Your task to perform on an android device: delete browsing data in the chrome app Image 0: 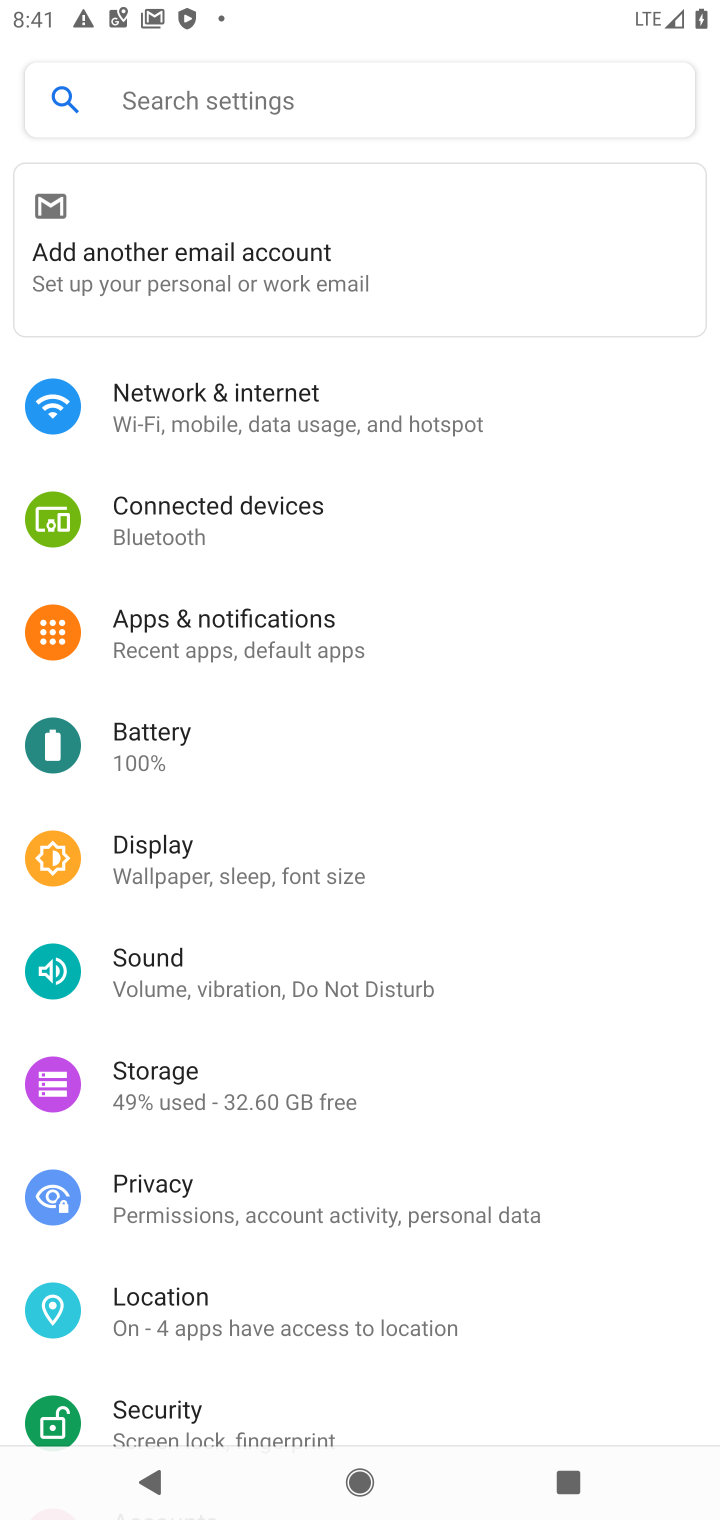
Step 0: press home button
Your task to perform on an android device: delete browsing data in the chrome app Image 1: 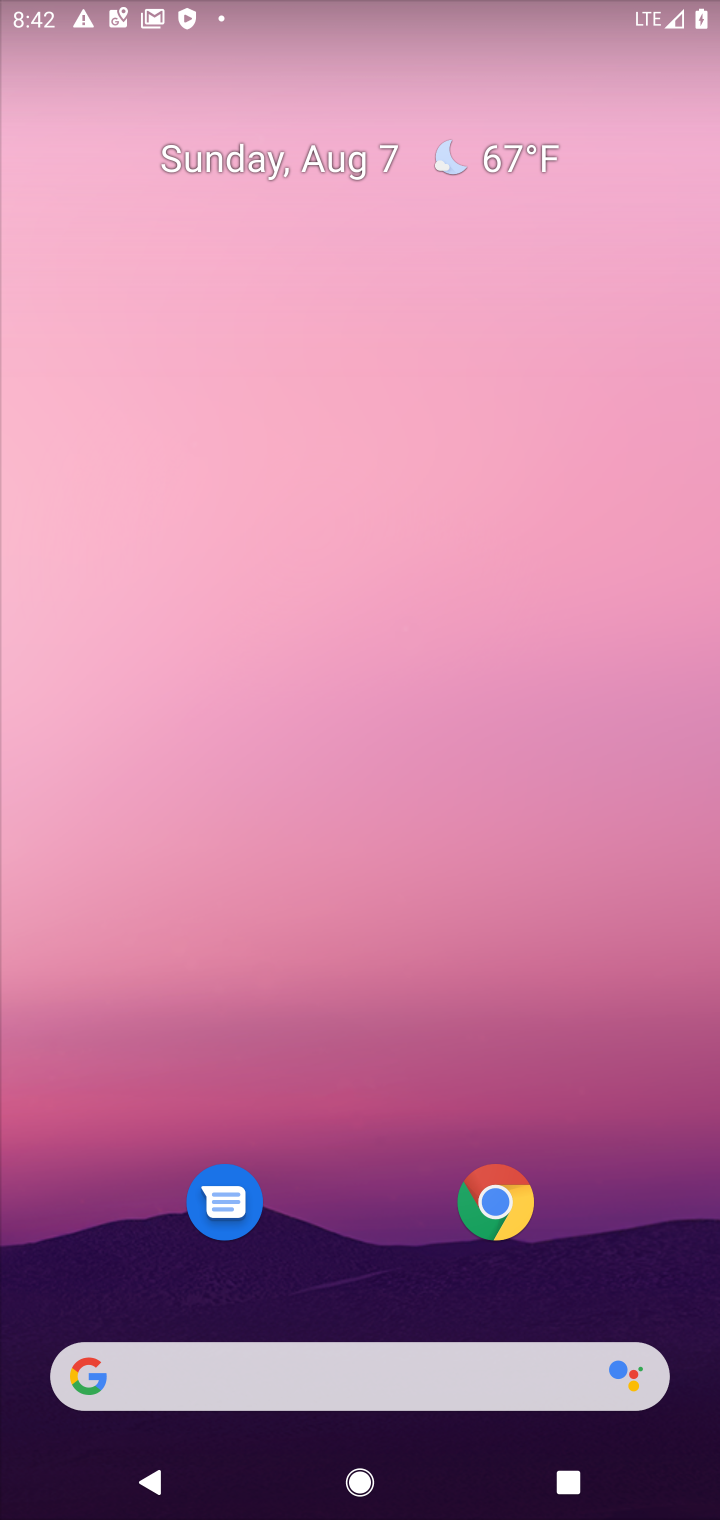
Step 1: click (472, 1202)
Your task to perform on an android device: delete browsing data in the chrome app Image 2: 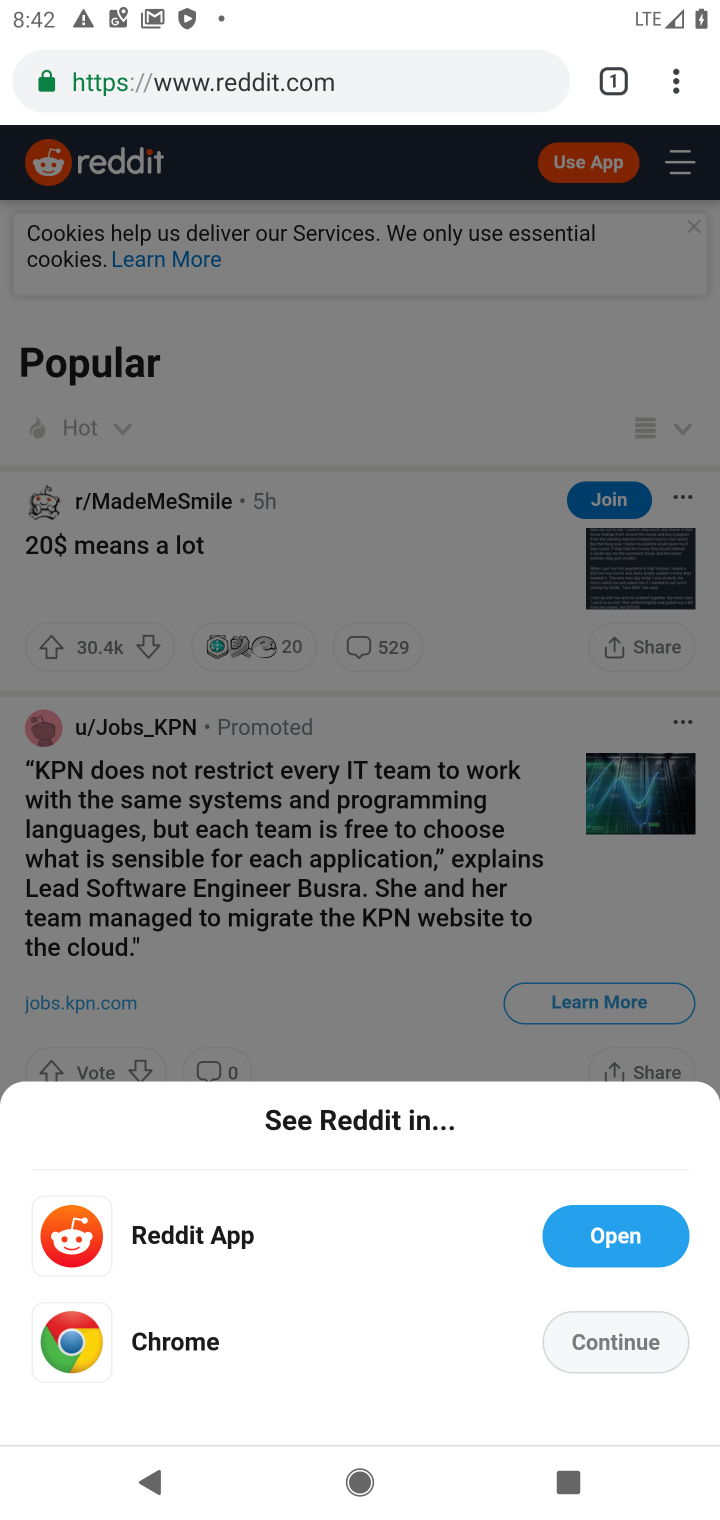
Step 2: click (682, 77)
Your task to perform on an android device: delete browsing data in the chrome app Image 3: 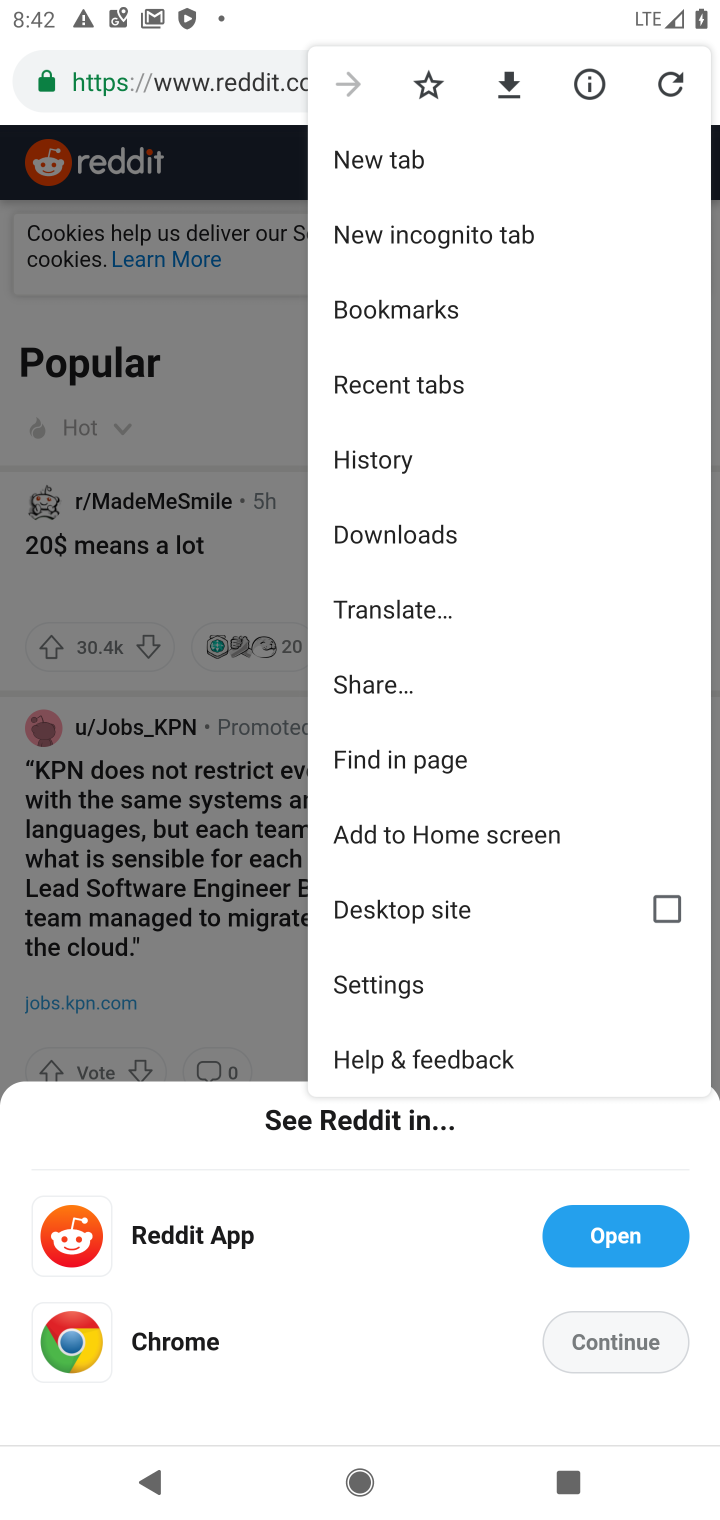
Step 3: click (410, 462)
Your task to perform on an android device: delete browsing data in the chrome app Image 4: 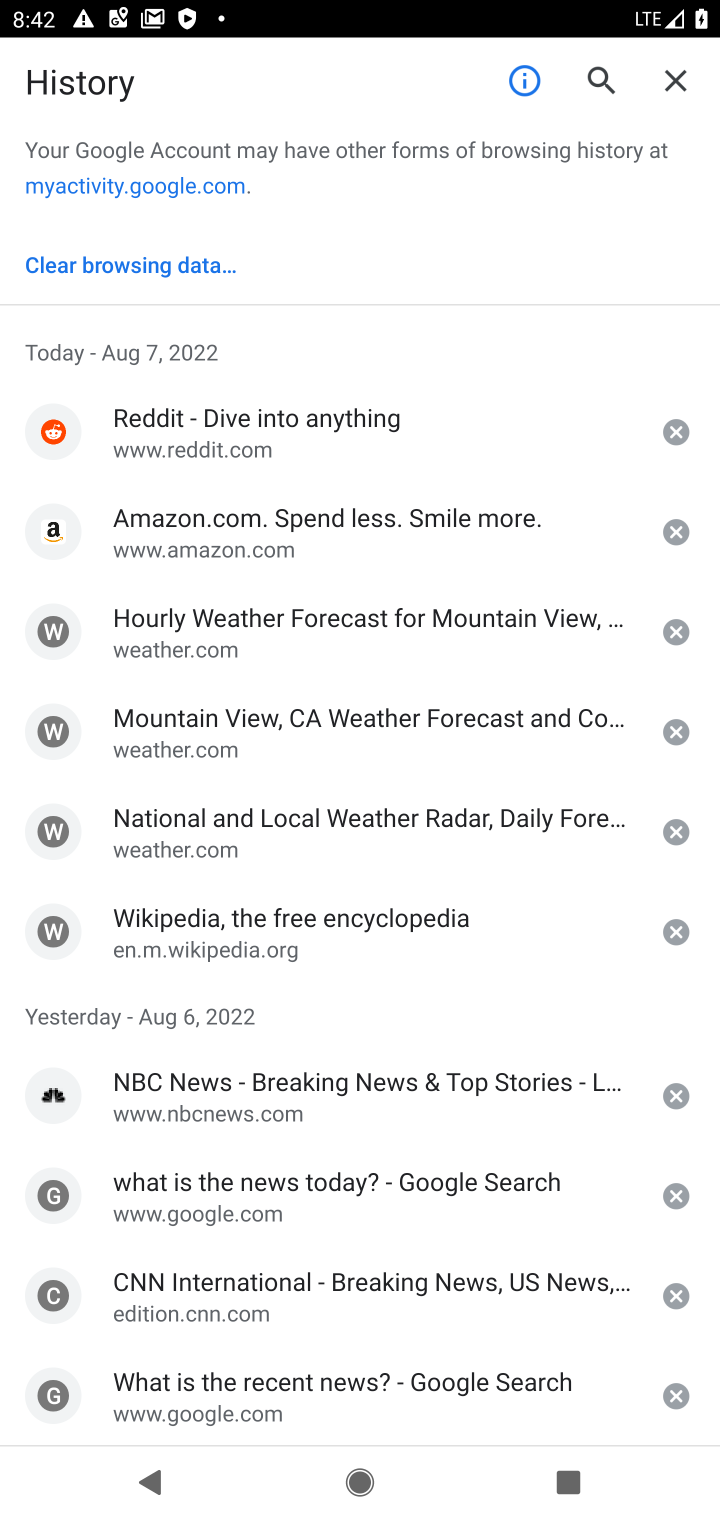
Step 4: click (155, 265)
Your task to perform on an android device: delete browsing data in the chrome app Image 5: 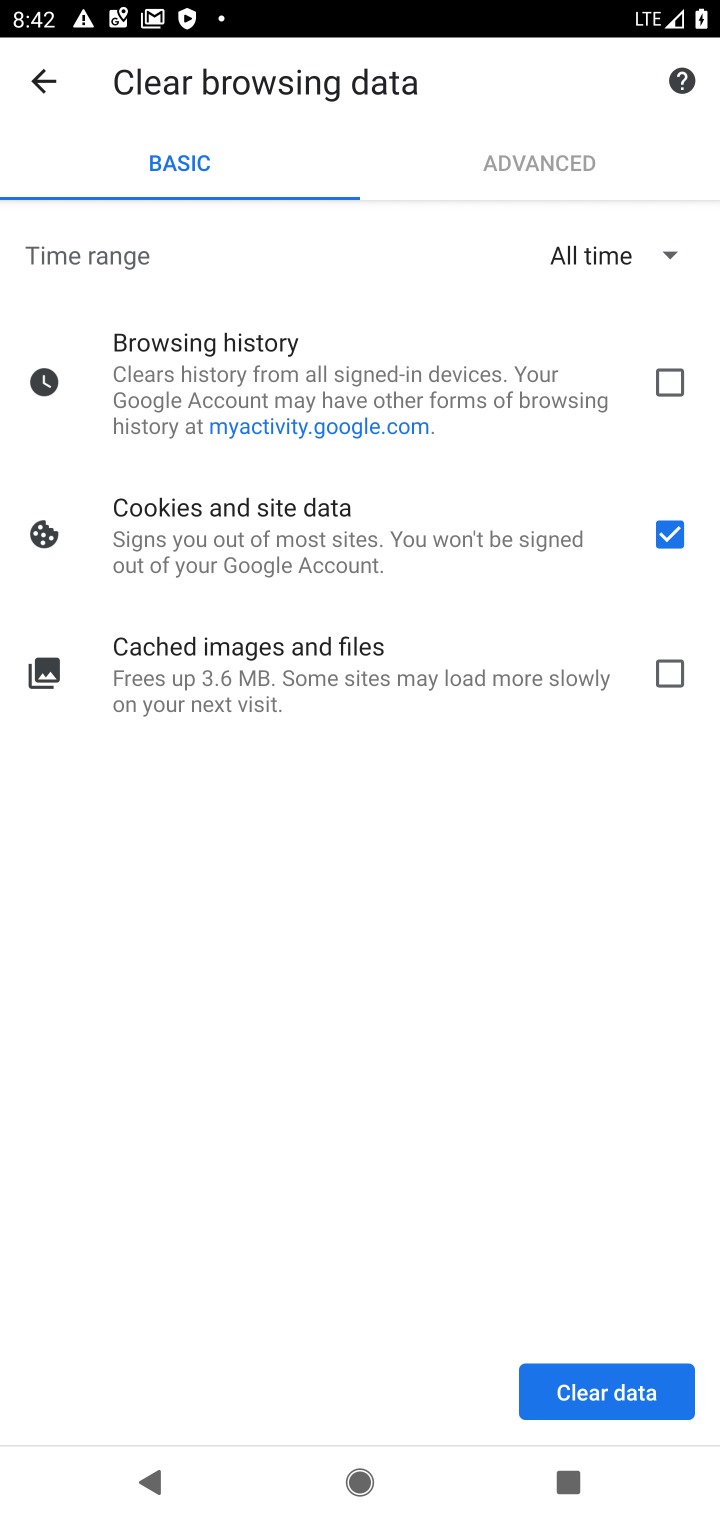
Step 5: click (699, 671)
Your task to perform on an android device: delete browsing data in the chrome app Image 6: 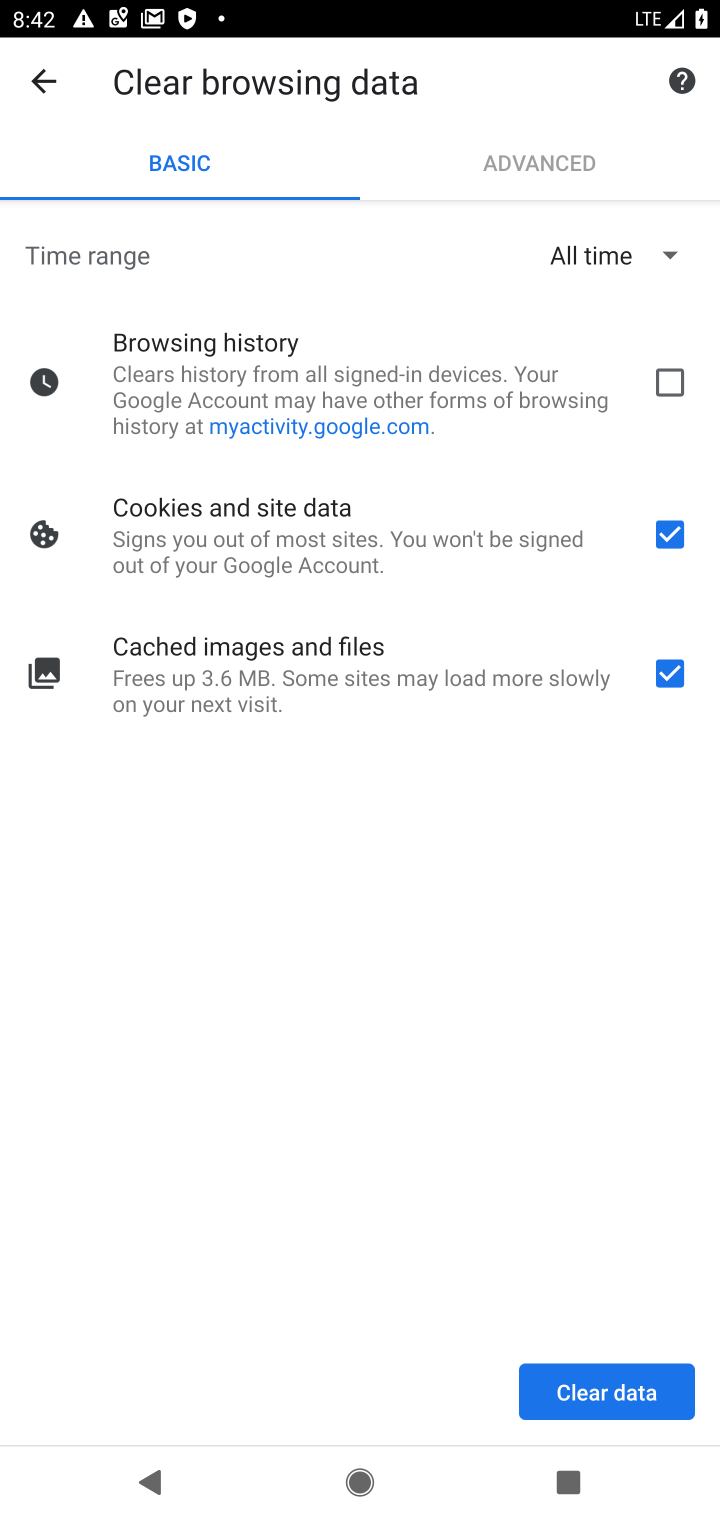
Step 6: click (673, 389)
Your task to perform on an android device: delete browsing data in the chrome app Image 7: 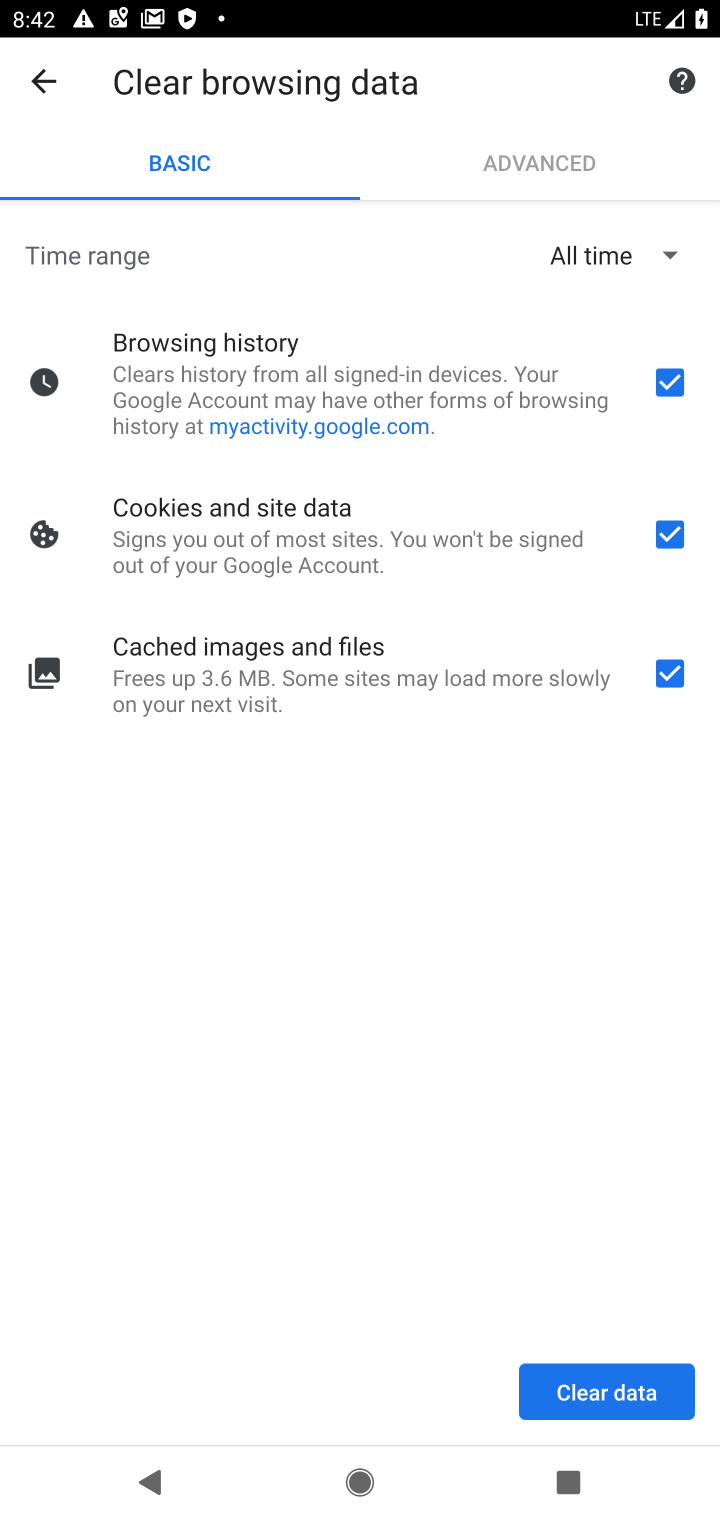
Step 7: click (602, 1398)
Your task to perform on an android device: delete browsing data in the chrome app Image 8: 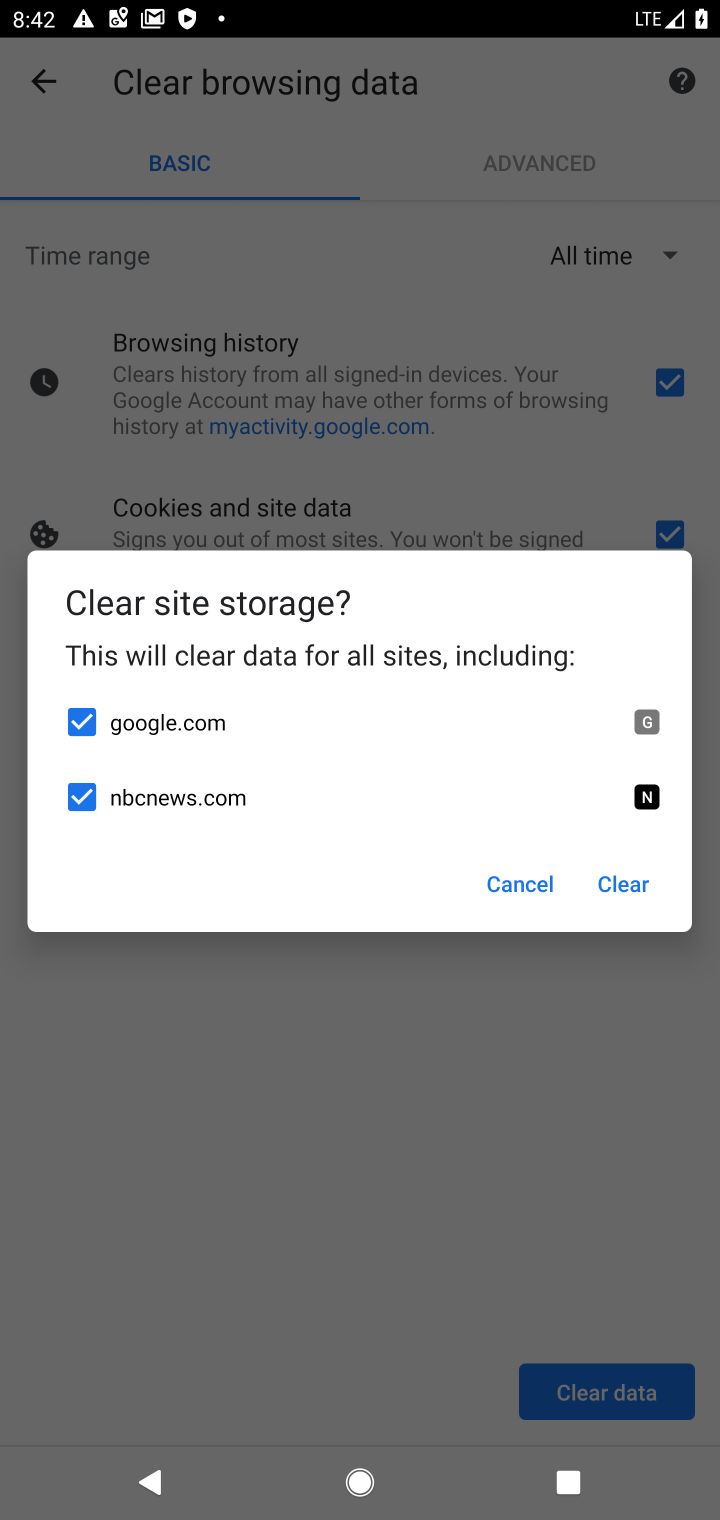
Step 8: click (628, 869)
Your task to perform on an android device: delete browsing data in the chrome app Image 9: 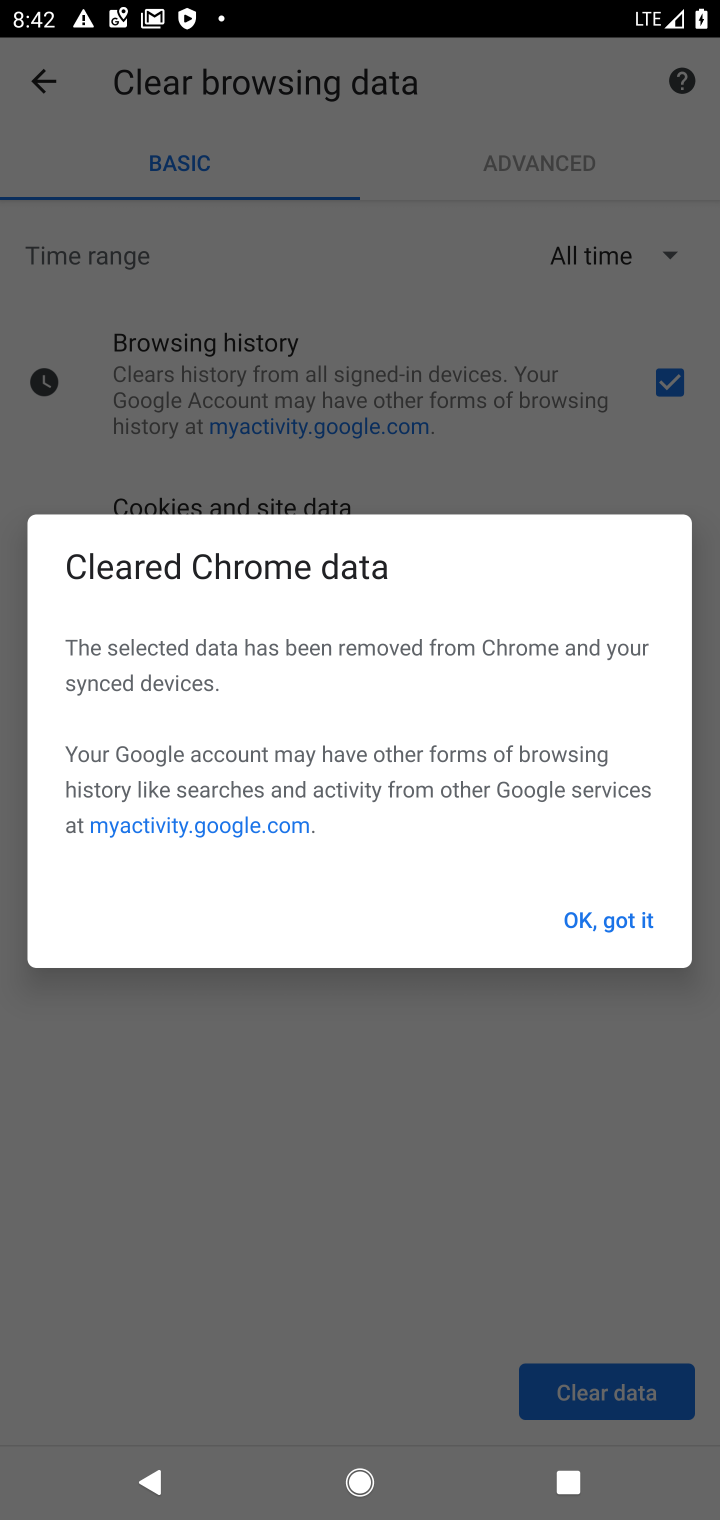
Step 9: click (613, 917)
Your task to perform on an android device: delete browsing data in the chrome app Image 10: 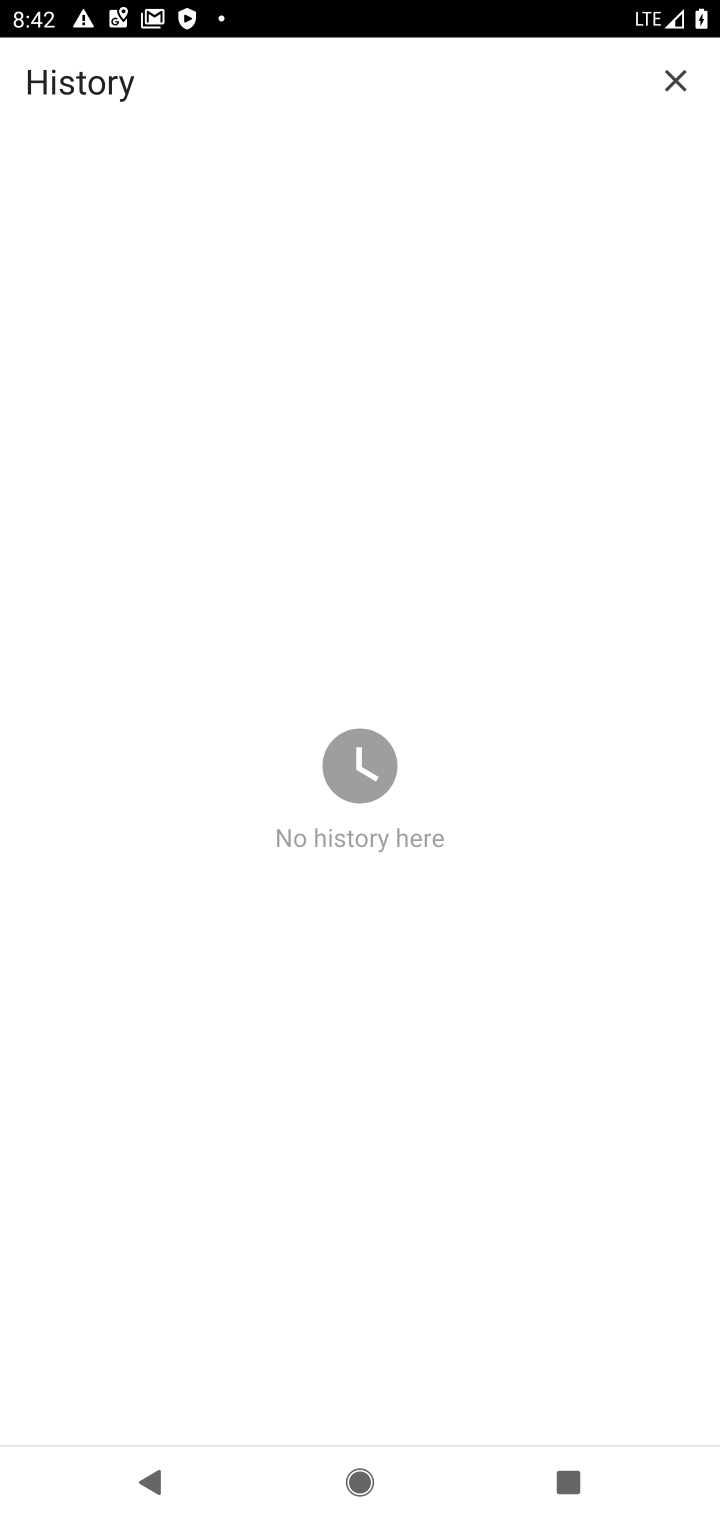
Step 10: task complete